Your task to perform on an android device: open a bookmark in the chrome app Image 0: 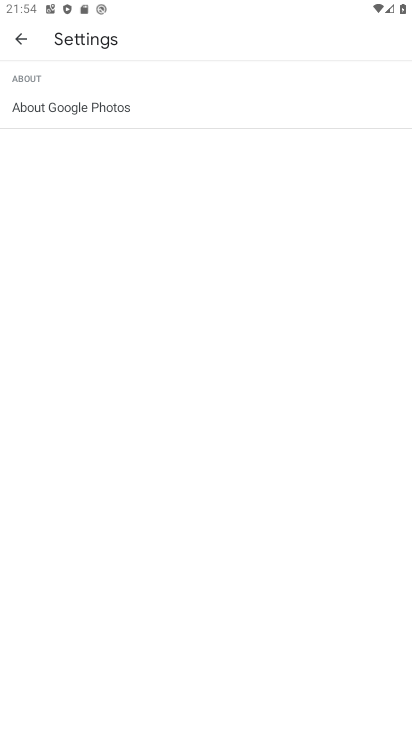
Step 0: press home button
Your task to perform on an android device: open a bookmark in the chrome app Image 1: 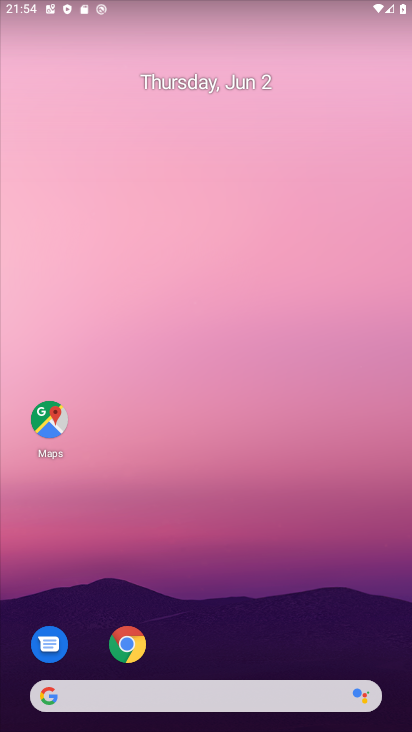
Step 1: drag from (162, 647) to (174, 301)
Your task to perform on an android device: open a bookmark in the chrome app Image 2: 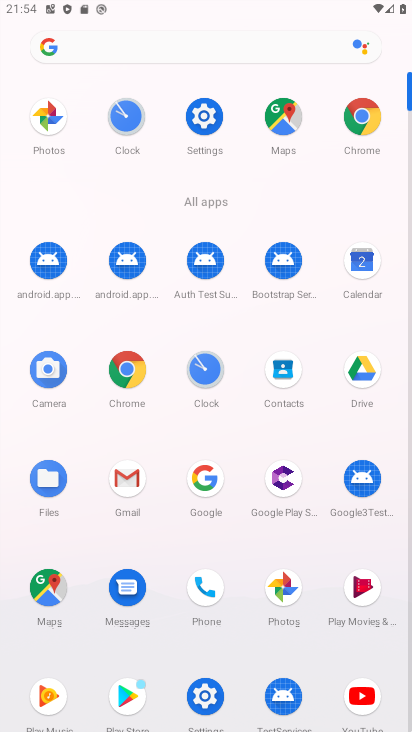
Step 2: click (114, 391)
Your task to perform on an android device: open a bookmark in the chrome app Image 3: 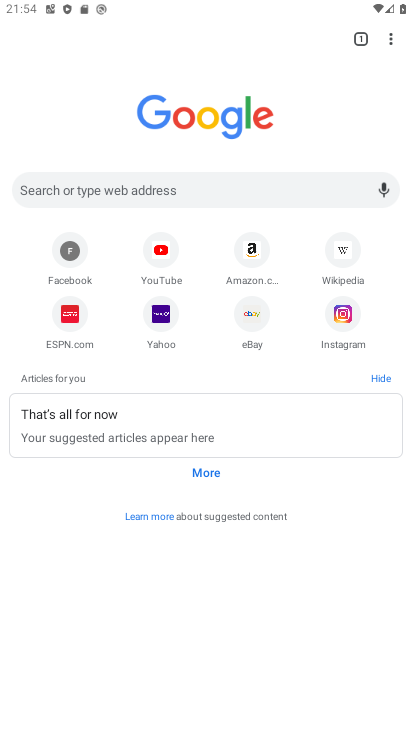
Step 3: click (394, 38)
Your task to perform on an android device: open a bookmark in the chrome app Image 4: 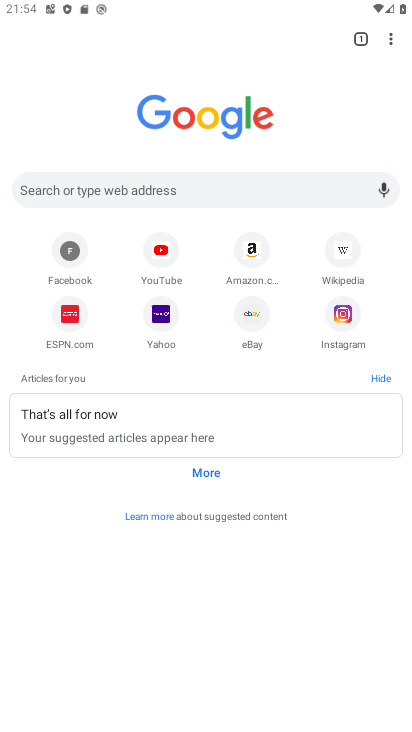
Step 4: click (389, 40)
Your task to perform on an android device: open a bookmark in the chrome app Image 5: 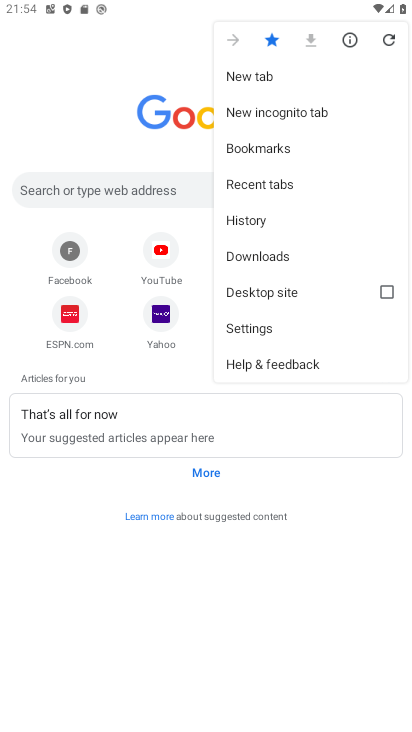
Step 5: click (254, 123)
Your task to perform on an android device: open a bookmark in the chrome app Image 6: 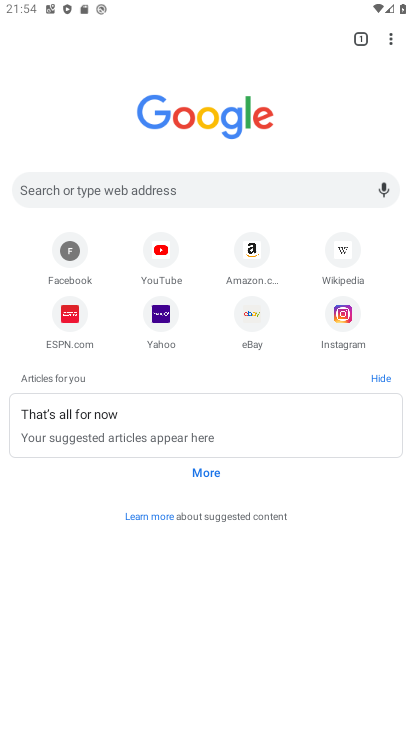
Step 6: click (246, 146)
Your task to perform on an android device: open a bookmark in the chrome app Image 7: 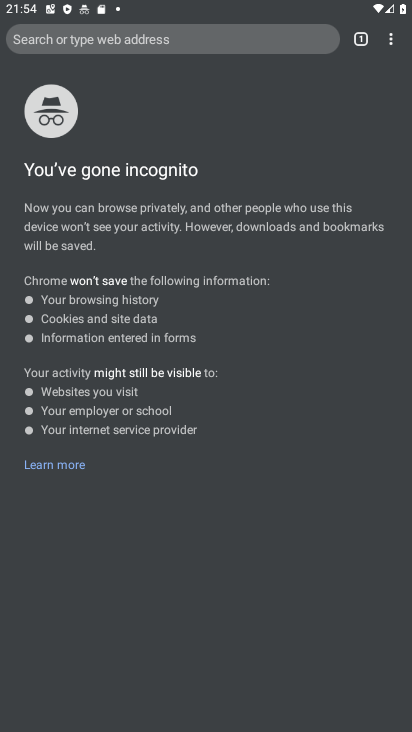
Step 7: click (362, 43)
Your task to perform on an android device: open a bookmark in the chrome app Image 8: 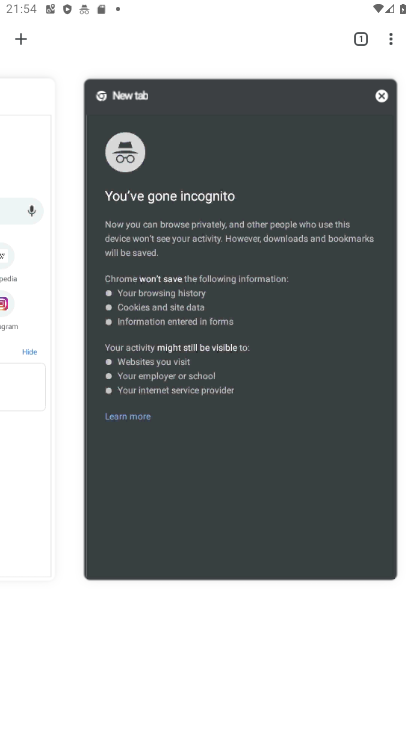
Step 8: click (387, 95)
Your task to perform on an android device: open a bookmark in the chrome app Image 9: 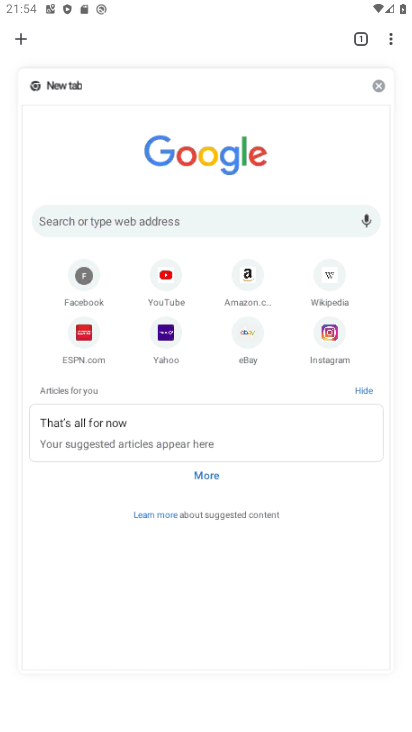
Step 9: click (21, 32)
Your task to perform on an android device: open a bookmark in the chrome app Image 10: 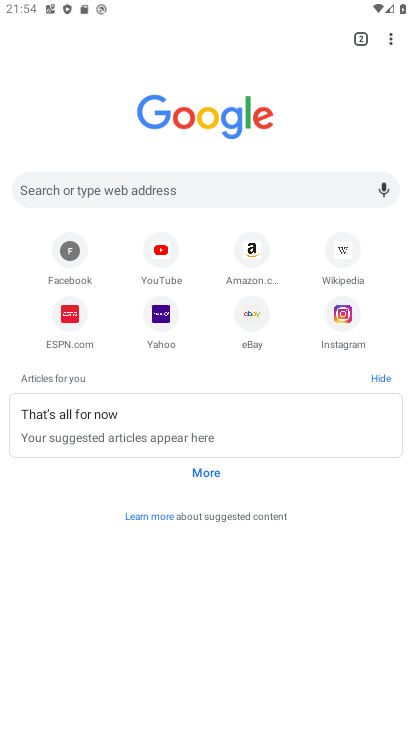
Step 10: click (388, 43)
Your task to perform on an android device: open a bookmark in the chrome app Image 11: 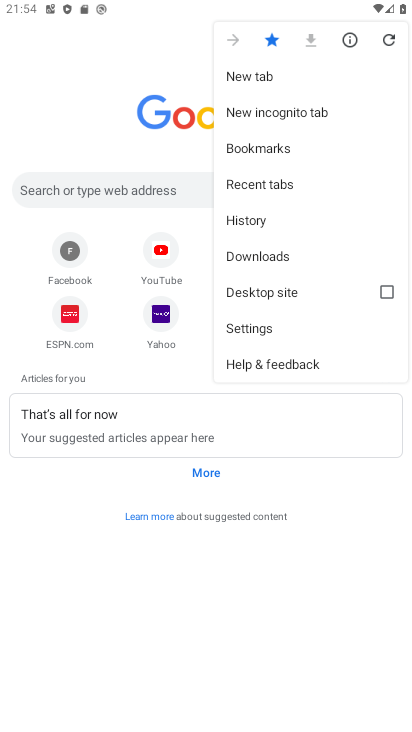
Step 11: click (260, 153)
Your task to perform on an android device: open a bookmark in the chrome app Image 12: 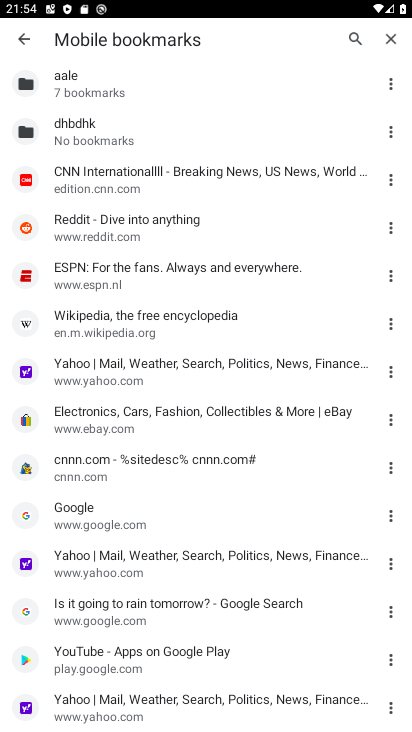
Step 12: click (149, 177)
Your task to perform on an android device: open a bookmark in the chrome app Image 13: 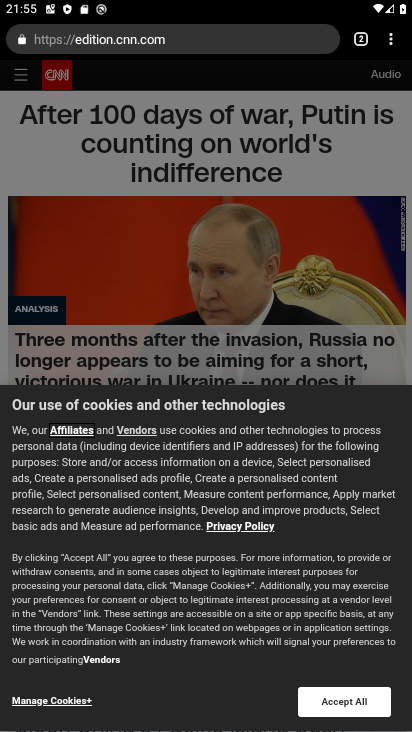
Step 13: task complete